Your task to perform on an android device: Go to Wikipedia Image 0: 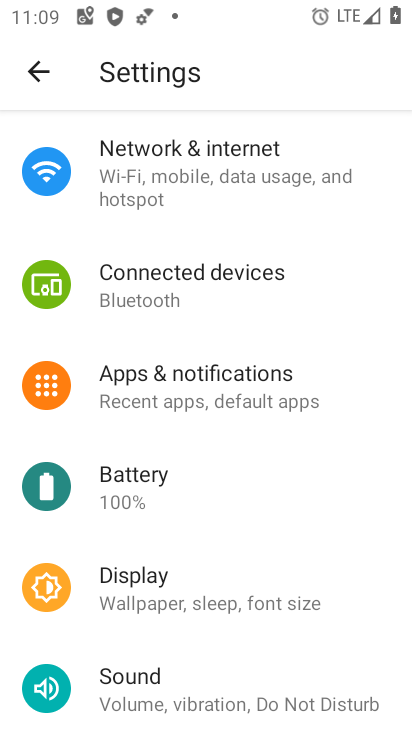
Step 0: press home button
Your task to perform on an android device: Go to Wikipedia Image 1: 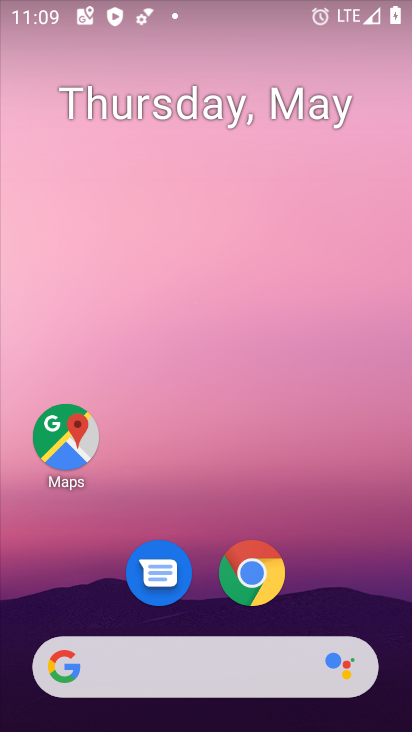
Step 1: click (160, 670)
Your task to perform on an android device: Go to Wikipedia Image 2: 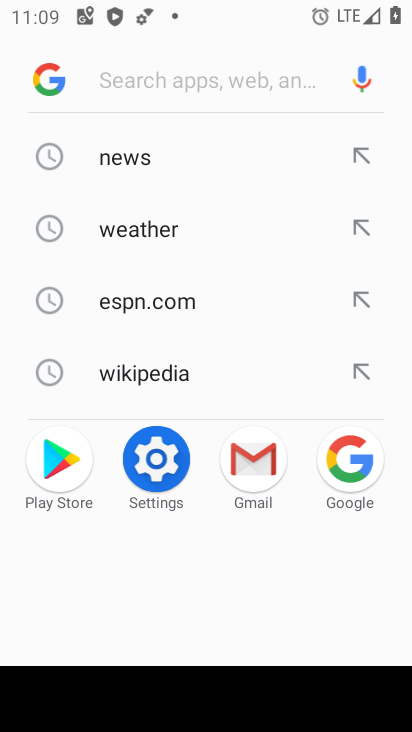
Step 2: click (178, 369)
Your task to perform on an android device: Go to Wikipedia Image 3: 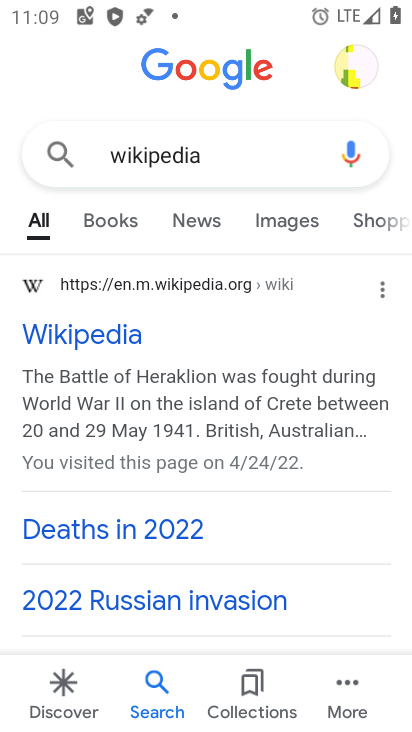
Step 3: click (65, 338)
Your task to perform on an android device: Go to Wikipedia Image 4: 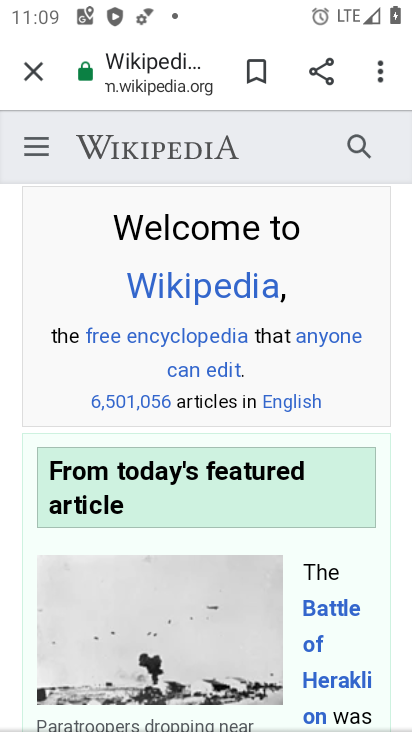
Step 4: task complete